Your task to perform on an android device: Search for a new skincare product Image 0: 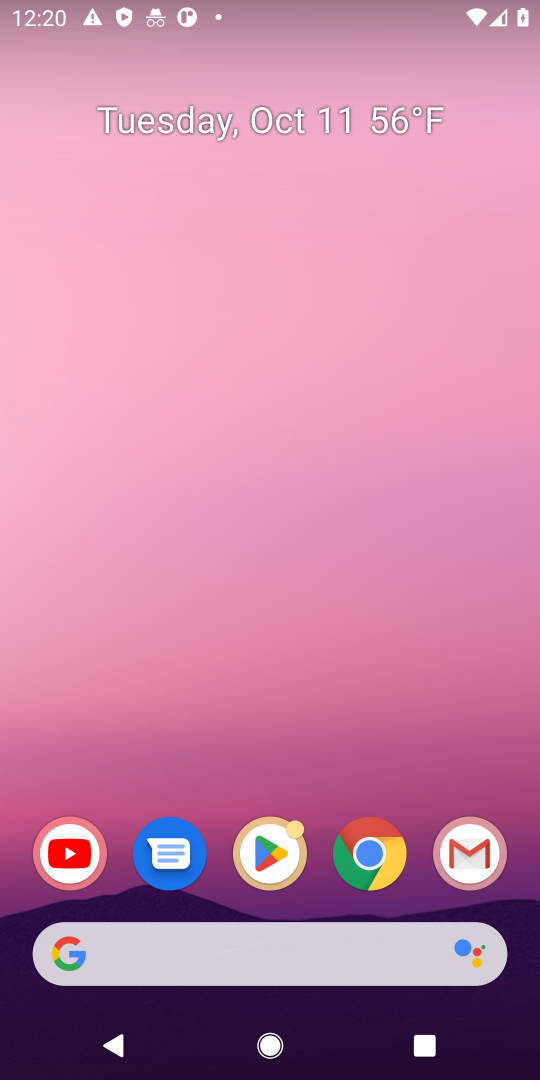
Step 0: drag from (370, 787) to (345, 20)
Your task to perform on an android device: Search for a new skincare product Image 1: 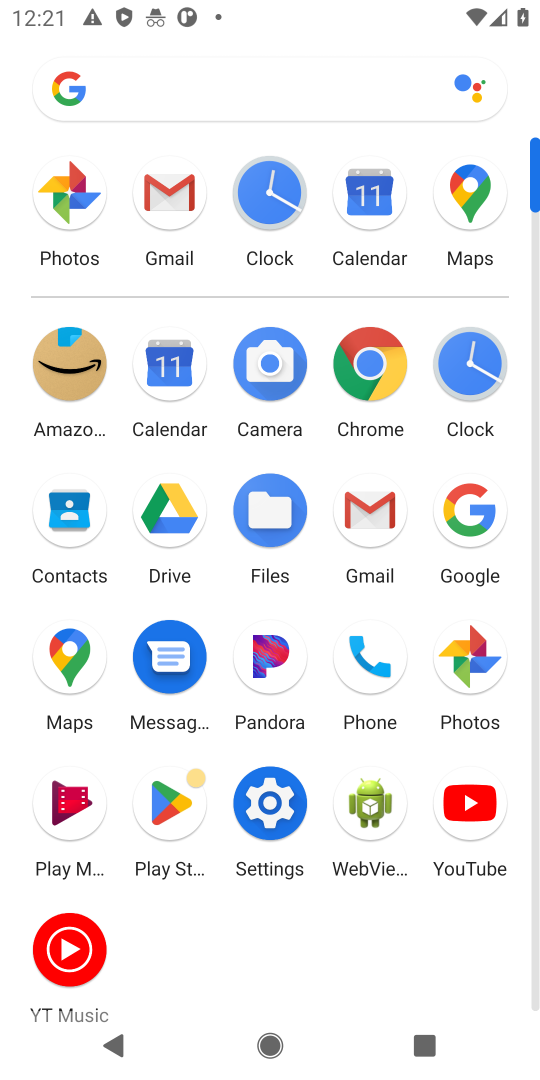
Step 1: click (378, 371)
Your task to perform on an android device: Search for a new skincare product Image 2: 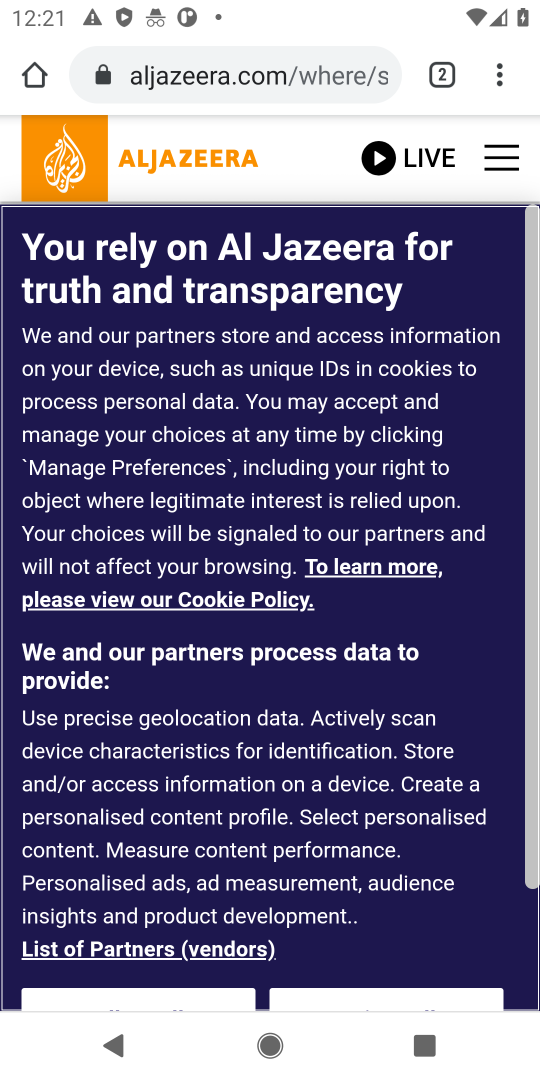
Step 2: click (278, 66)
Your task to perform on an android device: Search for a new skincare product Image 3: 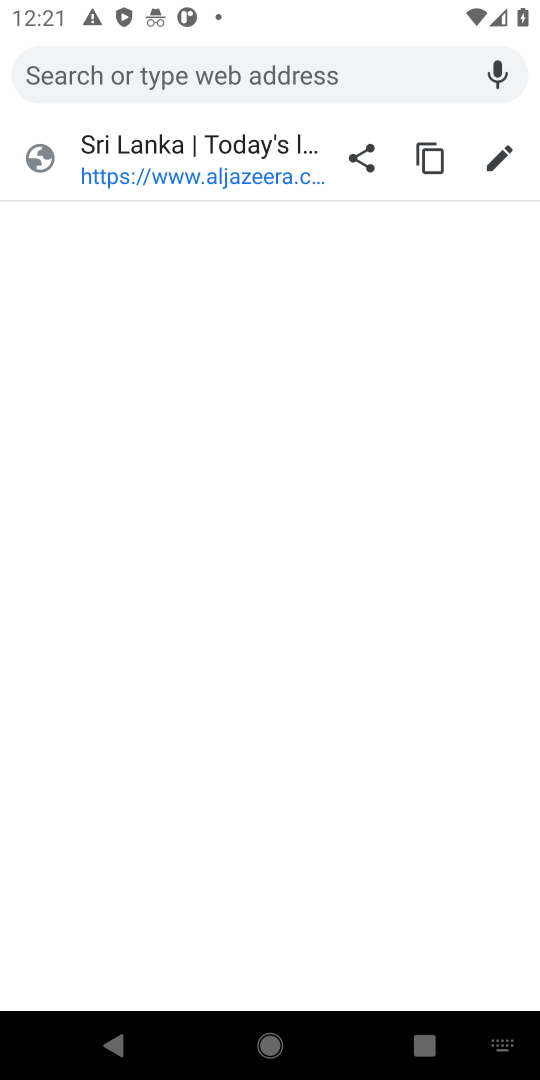
Step 3: type "Search for a new skincare product"
Your task to perform on an android device: Search for a new skincare product Image 4: 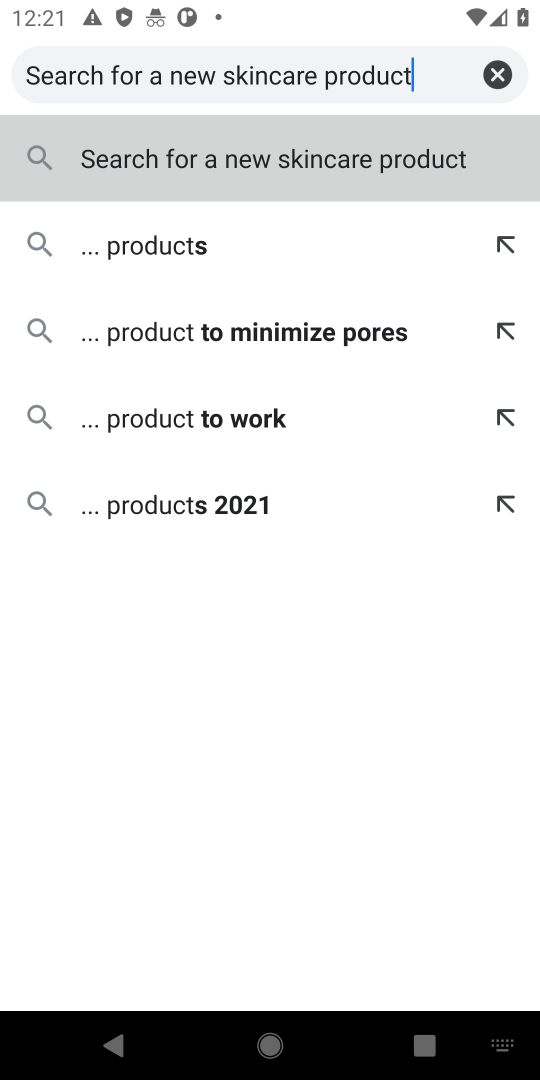
Step 4: click (324, 165)
Your task to perform on an android device: Search for a new skincare product Image 5: 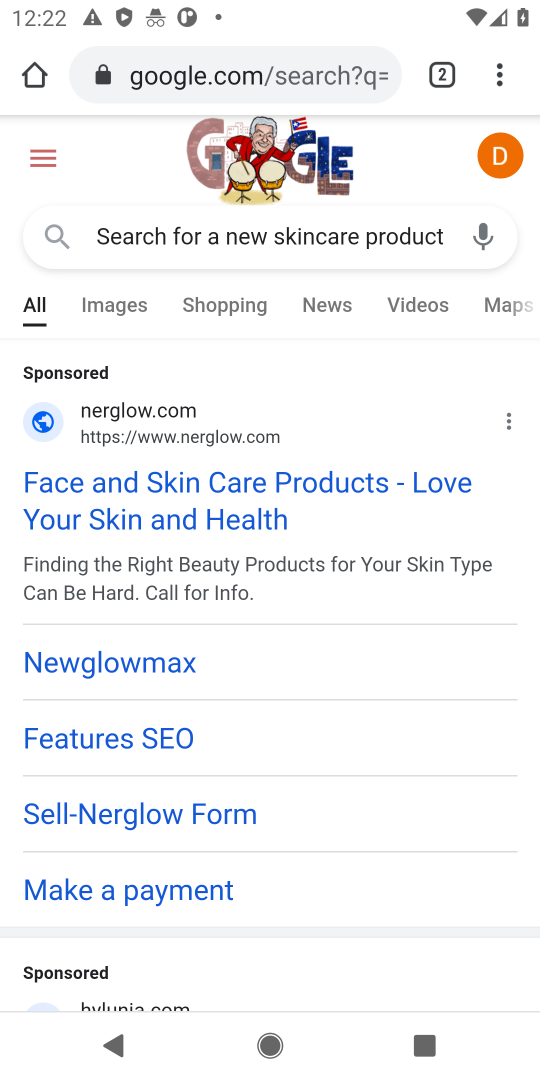
Step 5: task complete